Your task to perform on an android device: Go to display settings Image 0: 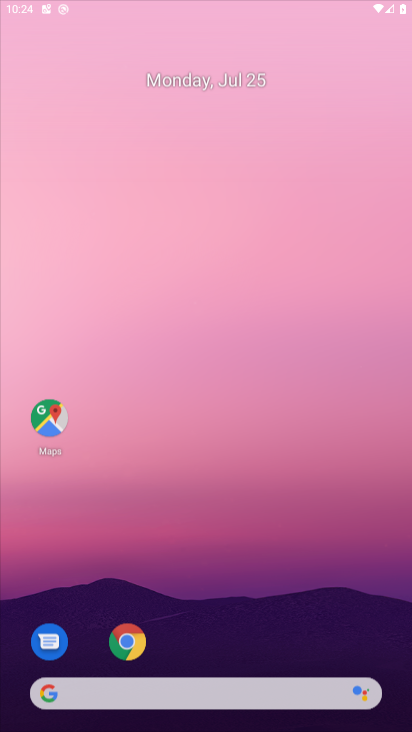
Step 0: click (245, 171)
Your task to perform on an android device: Go to display settings Image 1: 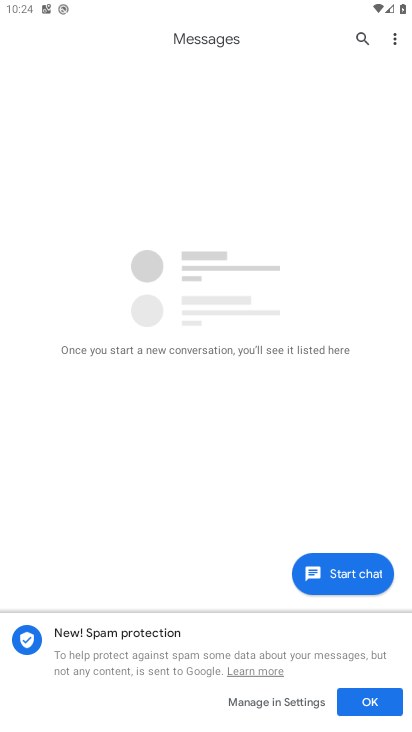
Step 1: press home button
Your task to perform on an android device: Go to display settings Image 2: 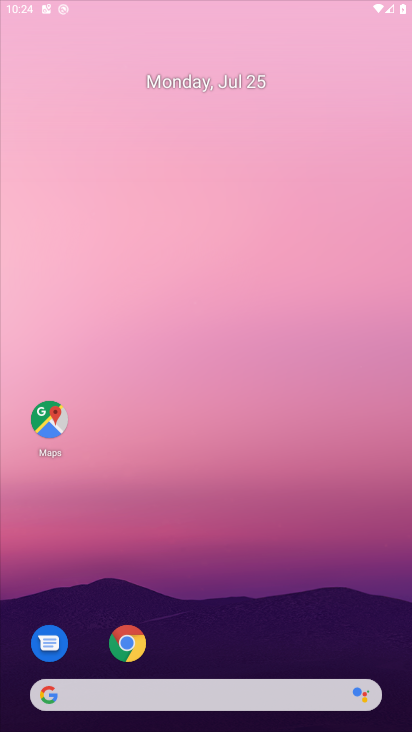
Step 2: press home button
Your task to perform on an android device: Go to display settings Image 3: 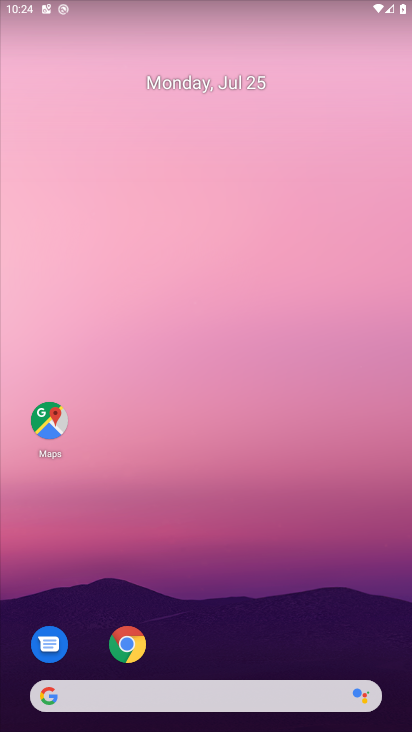
Step 3: drag from (393, 616) to (251, 185)
Your task to perform on an android device: Go to display settings Image 4: 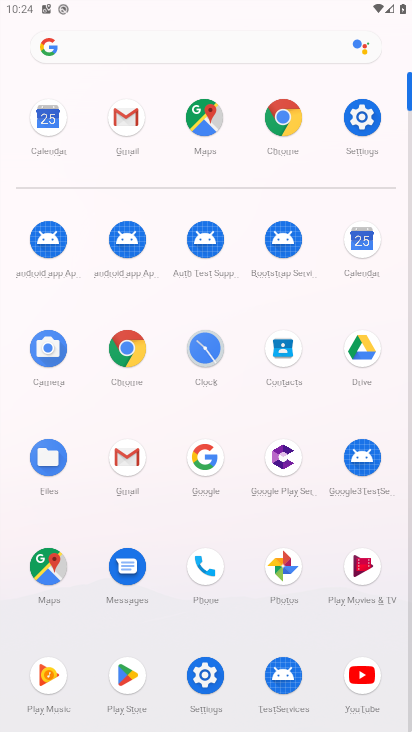
Step 4: click (203, 668)
Your task to perform on an android device: Go to display settings Image 5: 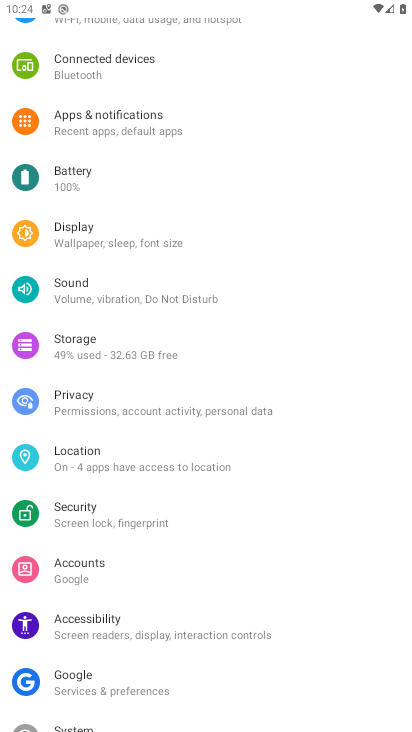
Step 5: click (65, 238)
Your task to perform on an android device: Go to display settings Image 6: 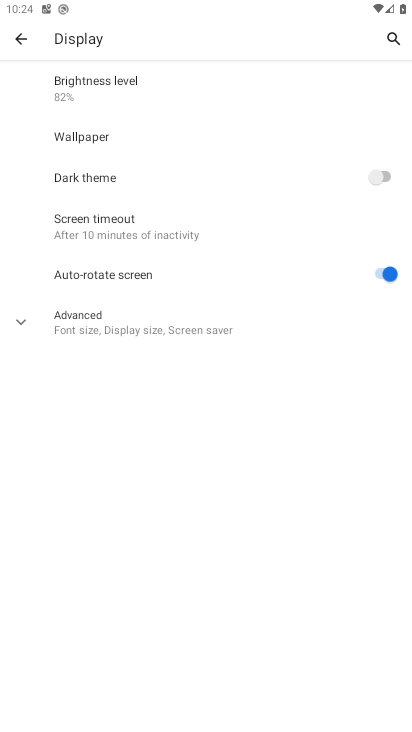
Step 6: task complete